Your task to perform on an android device: Go to location settings Image 0: 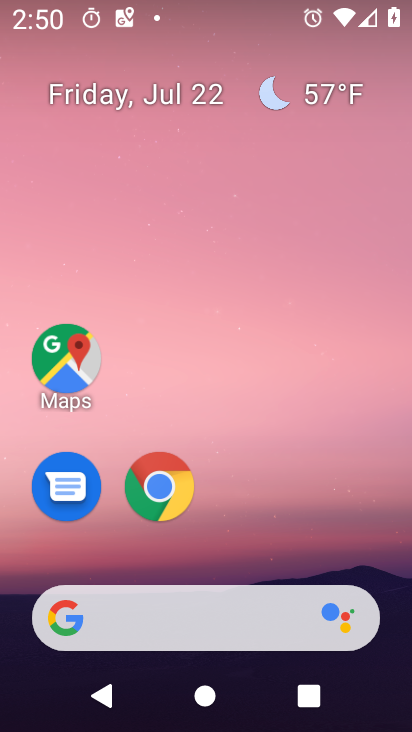
Step 0: press home button
Your task to perform on an android device: Go to location settings Image 1: 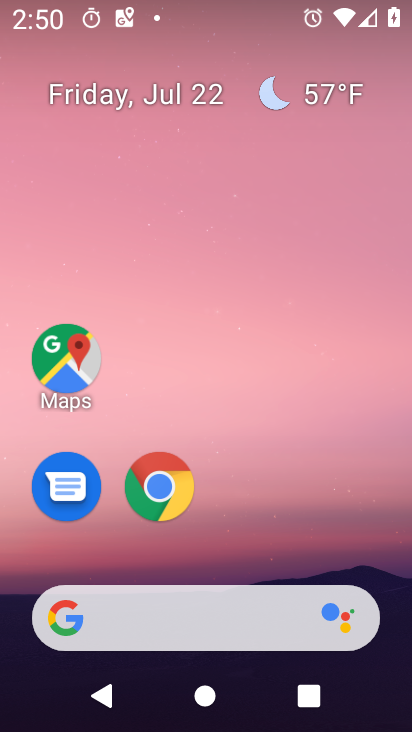
Step 1: drag from (335, 499) to (346, 211)
Your task to perform on an android device: Go to location settings Image 2: 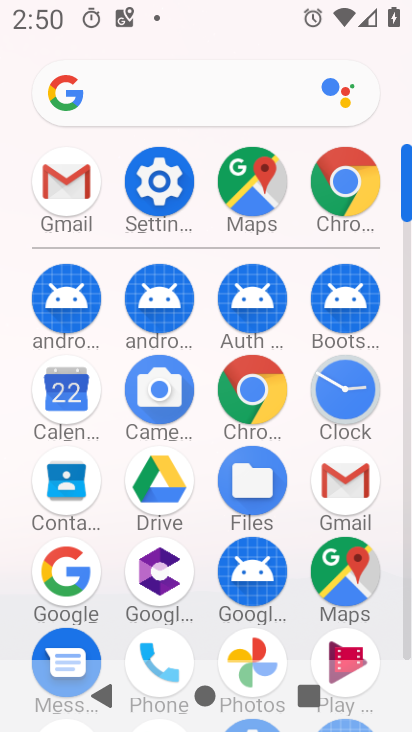
Step 2: click (160, 189)
Your task to perform on an android device: Go to location settings Image 3: 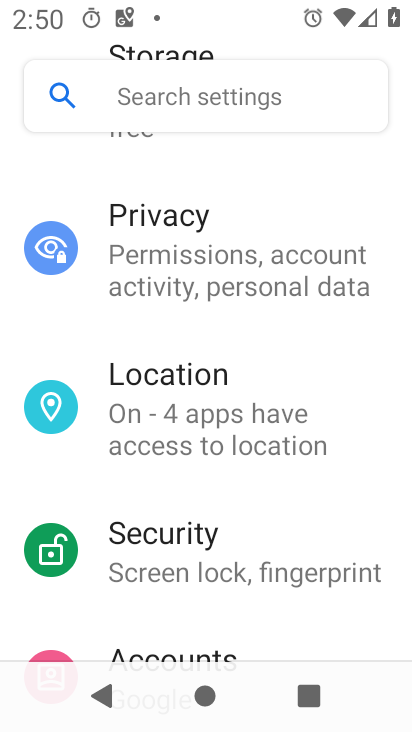
Step 3: drag from (364, 479) to (371, 402)
Your task to perform on an android device: Go to location settings Image 4: 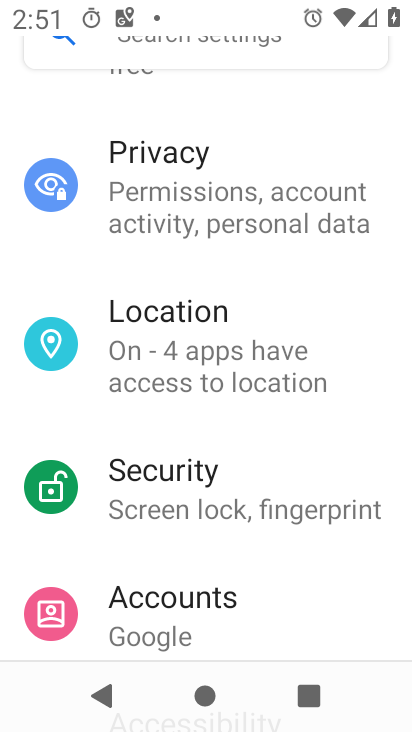
Step 4: drag from (371, 465) to (370, 383)
Your task to perform on an android device: Go to location settings Image 5: 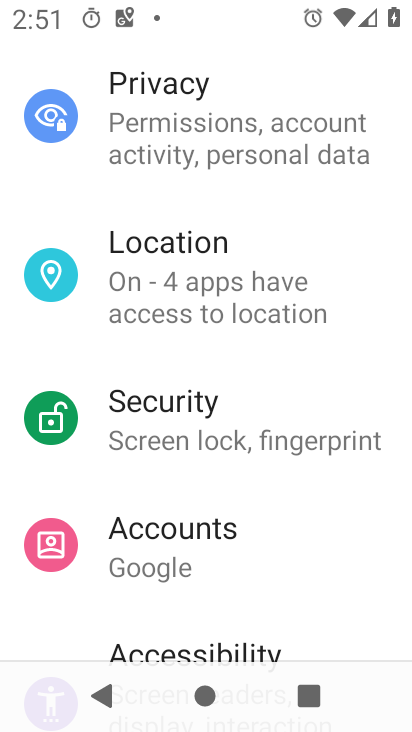
Step 5: drag from (372, 500) to (369, 396)
Your task to perform on an android device: Go to location settings Image 6: 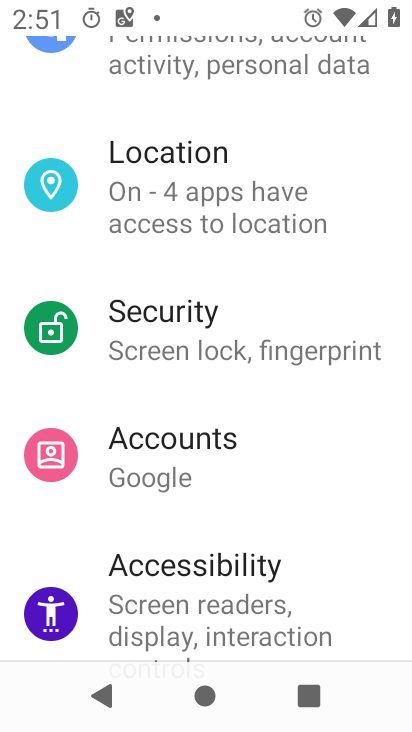
Step 6: drag from (362, 507) to (359, 402)
Your task to perform on an android device: Go to location settings Image 7: 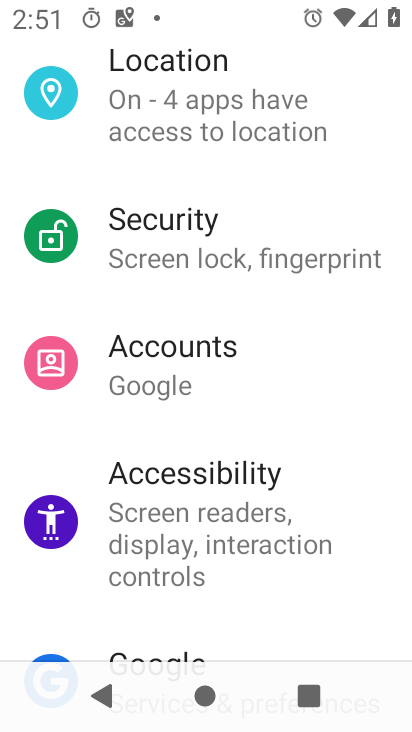
Step 7: drag from (352, 503) to (351, 403)
Your task to perform on an android device: Go to location settings Image 8: 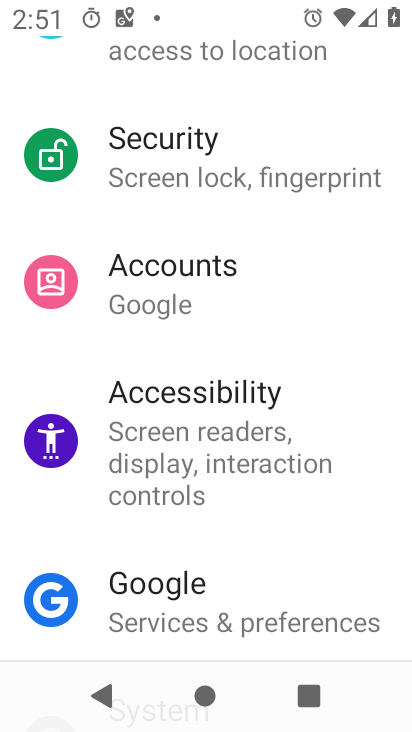
Step 8: drag from (350, 527) to (349, 367)
Your task to perform on an android device: Go to location settings Image 9: 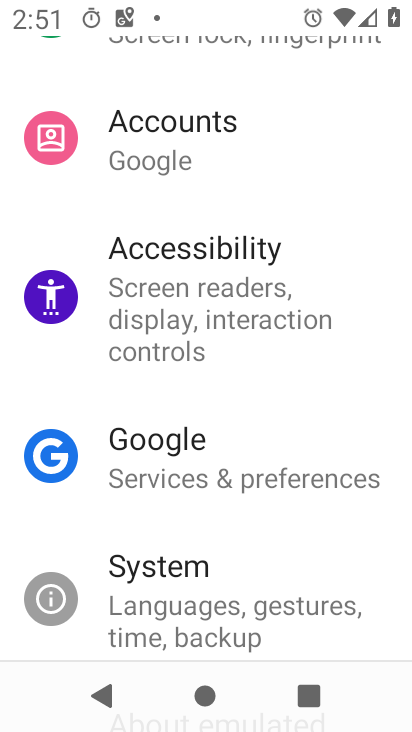
Step 9: drag from (352, 242) to (365, 335)
Your task to perform on an android device: Go to location settings Image 10: 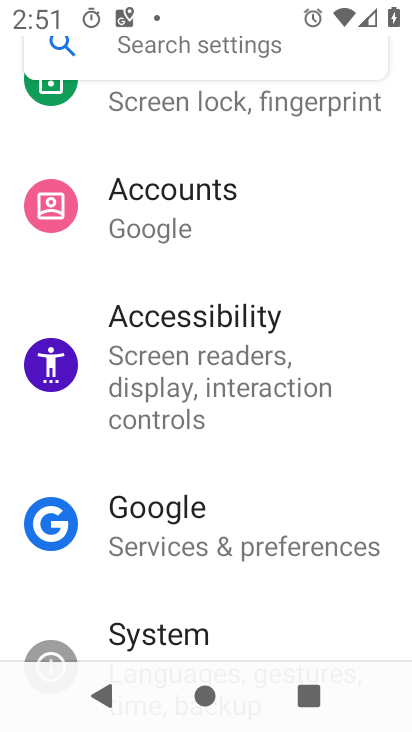
Step 10: drag from (358, 227) to (362, 353)
Your task to perform on an android device: Go to location settings Image 11: 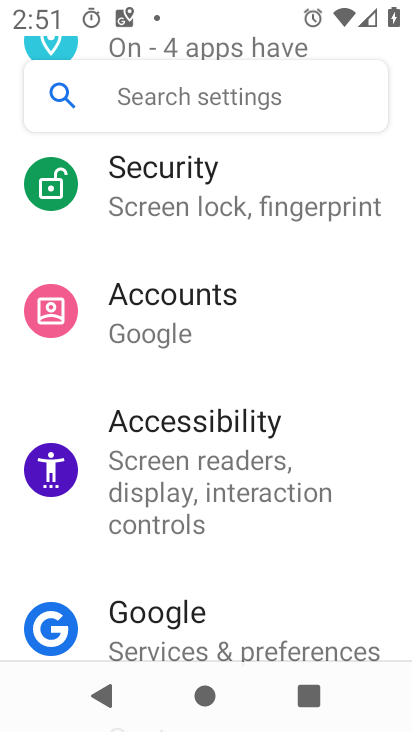
Step 11: drag from (369, 254) to (373, 368)
Your task to perform on an android device: Go to location settings Image 12: 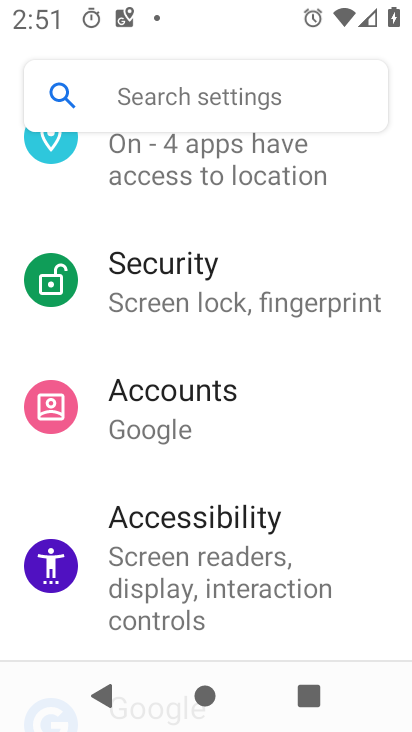
Step 12: drag from (367, 213) to (368, 353)
Your task to perform on an android device: Go to location settings Image 13: 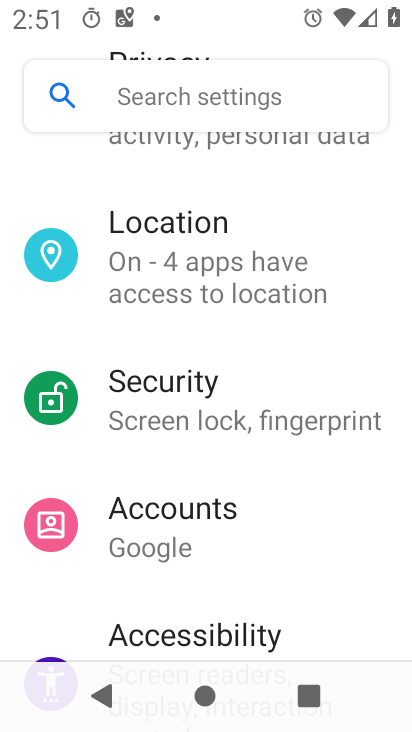
Step 13: drag from (354, 200) to (356, 347)
Your task to perform on an android device: Go to location settings Image 14: 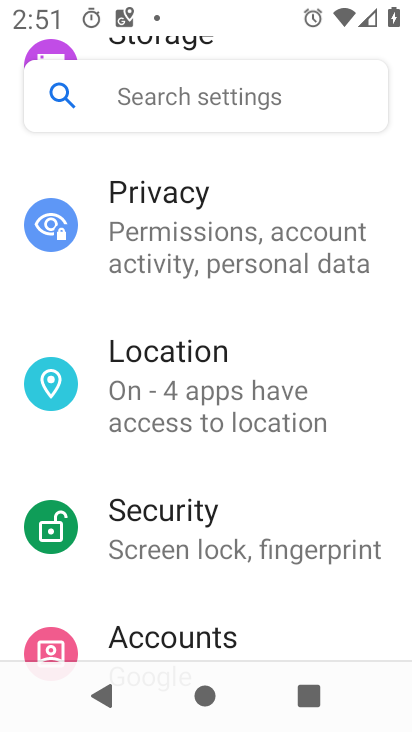
Step 14: click (286, 397)
Your task to perform on an android device: Go to location settings Image 15: 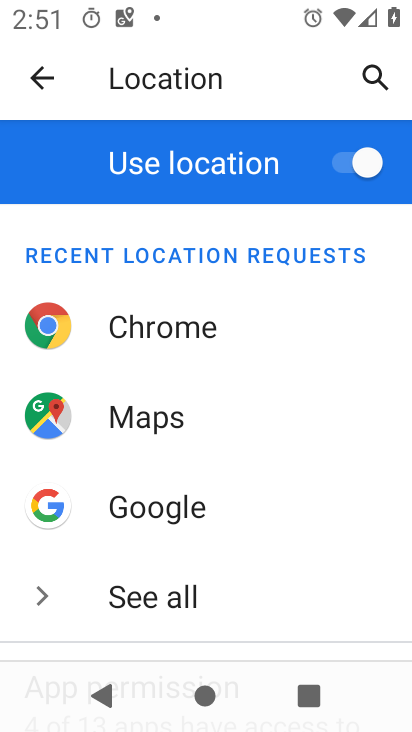
Step 15: task complete